Your task to perform on an android device: all mails in gmail Image 0: 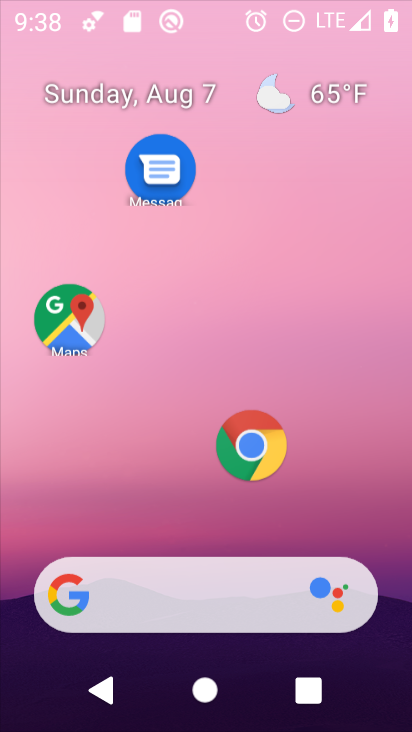
Step 0: press home button
Your task to perform on an android device: all mails in gmail Image 1: 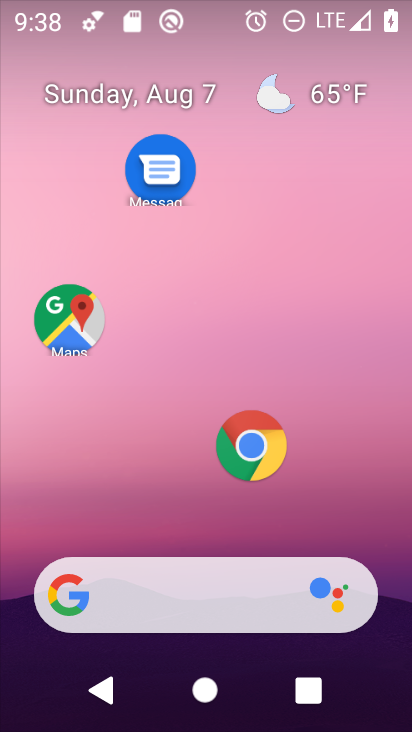
Step 1: click (68, 317)
Your task to perform on an android device: all mails in gmail Image 2: 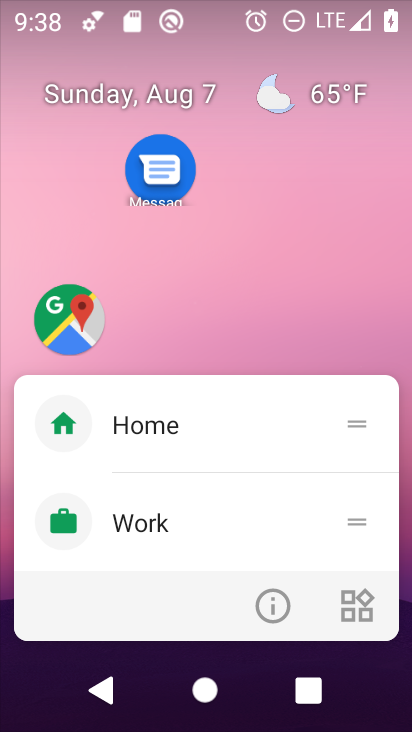
Step 2: click (299, 308)
Your task to perform on an android device: all mails in gmail Image 3: 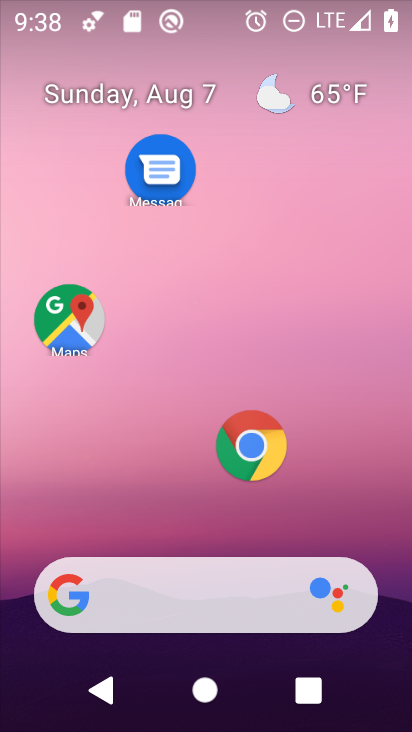
Step 3: drag from (216, 537) to (222, 114)
Your task to perform on an android device: all mails in gmail Image 4: 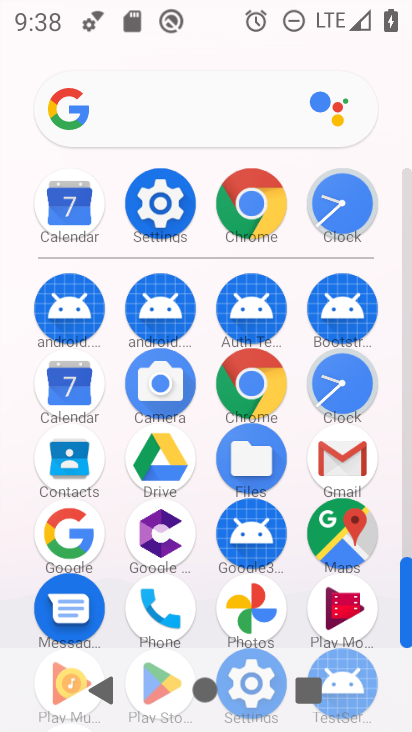
Step 4: click (340, 443)
Your task to perform on an android device: all mails in gmail Image 5: 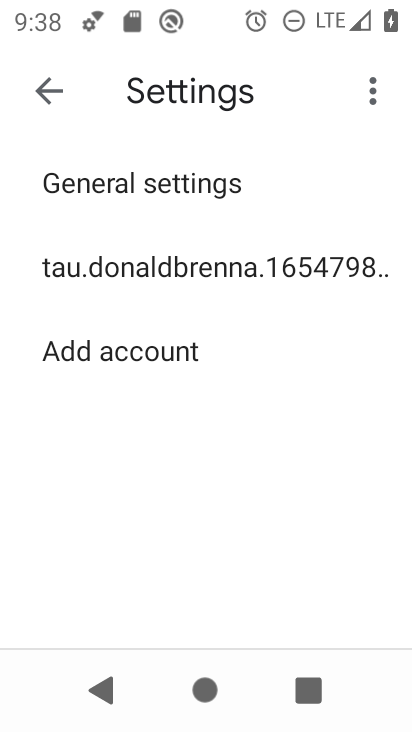
Step 5: click (55, 92)
Your task to perform on an android device: all mails in gmail Image 6: 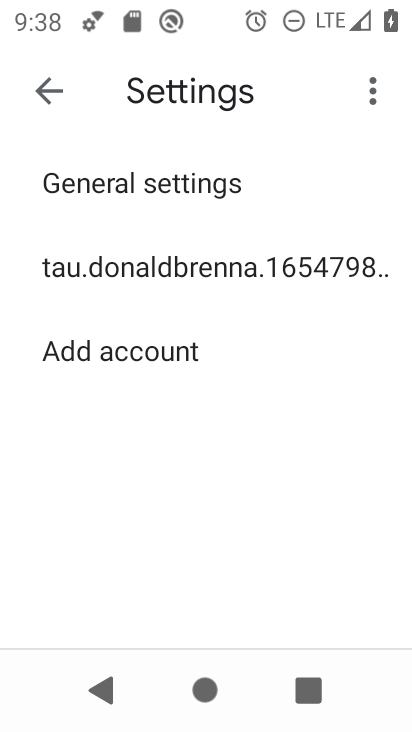
Step 6: click (53, 97)
Your task to perform on an android device: all mails in gmail Image 7: 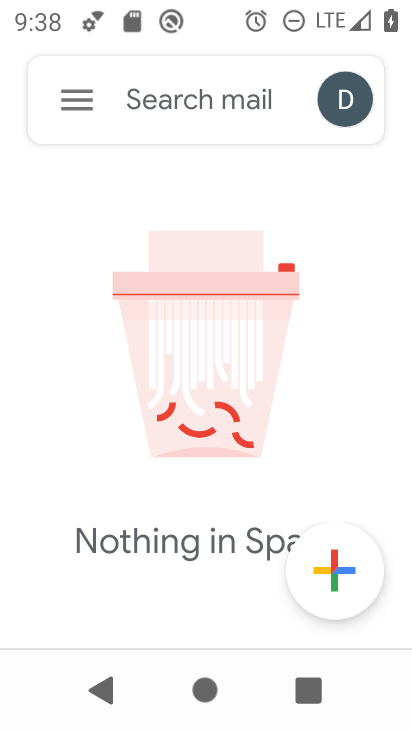
Step 7: click (65, 97)
Your task to perform on an android device: all mails in gmail Image 8: 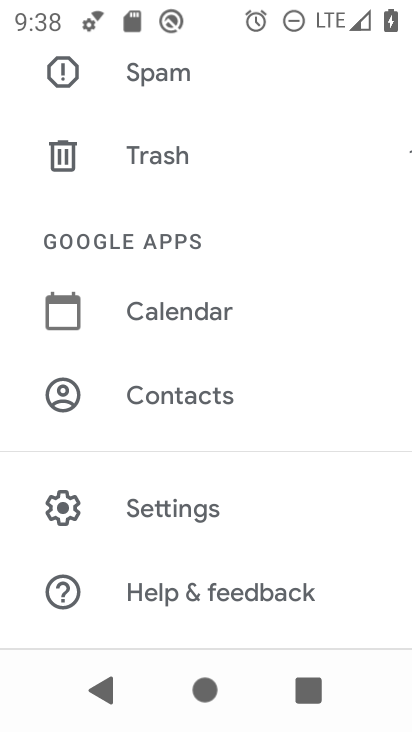
Step 8: drag from (146, 153) to (187, 413)
Your task to perform on an android device: all mails in gmail Image 9: 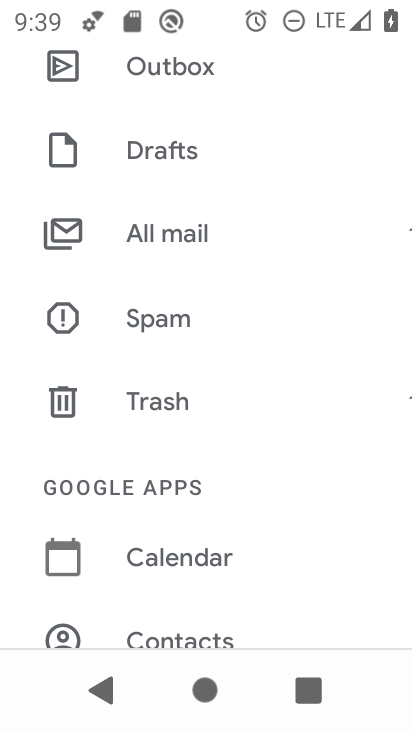
Step 9: click (115, 228)
Your task to perform on an android device: all mails in gmail Image 10: 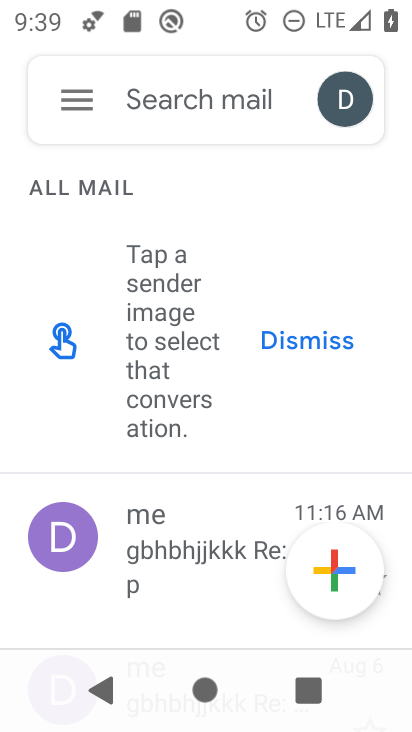
Step 10: task complete